Your task to perform on an android device: turn notification dots on Image 0: 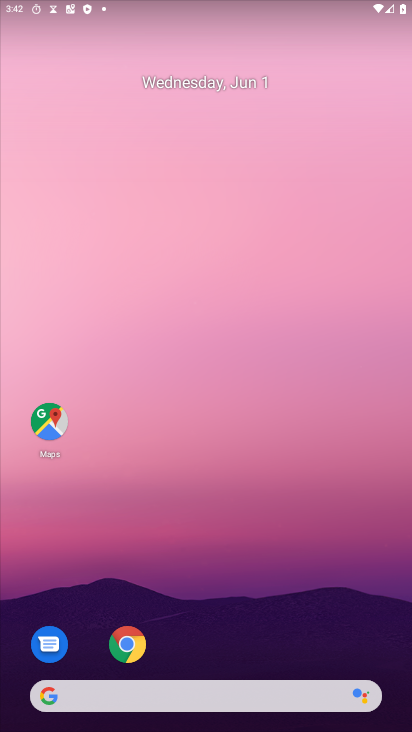
Step 0: drag from (250, 636) to (306, 241)
Your task to perform on an android device: turn notification dots on Image 1: 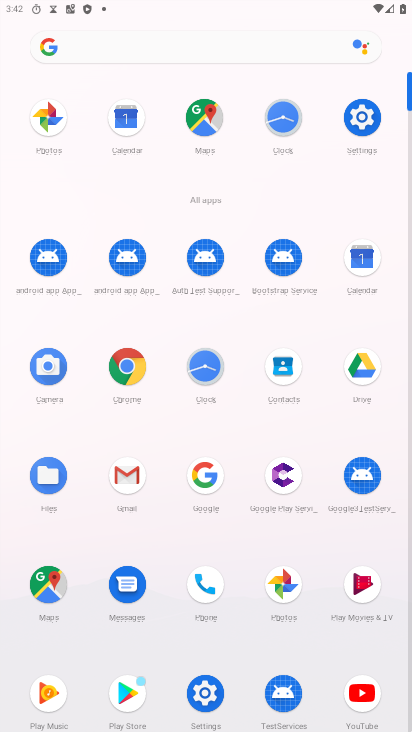
Step 1: click (361, 114)
Your task to perform on an android device: turn notification dots on Image 2: 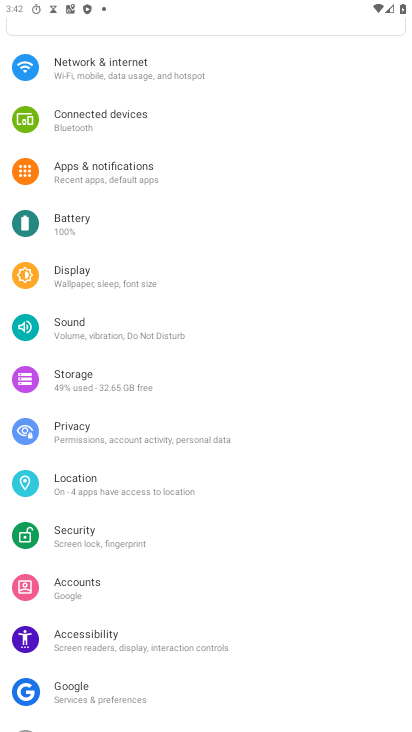
Step 2: click (146, 167)
Your task to perform on an android device: turn notification dots on Image 3: 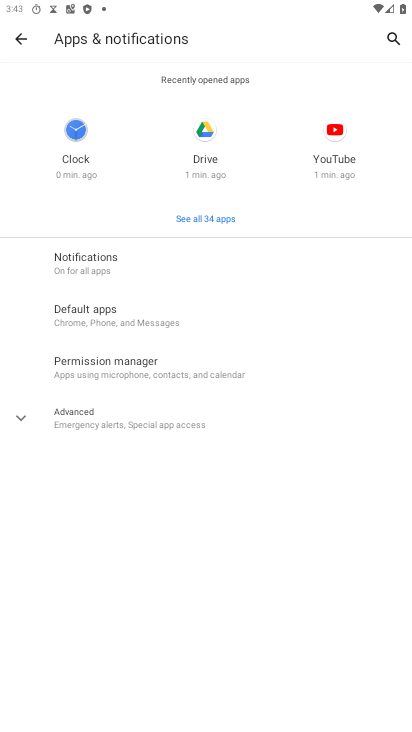
Step 3: click (75, 253)
Your task to perform on an android device: turn notification dots on Image 4: 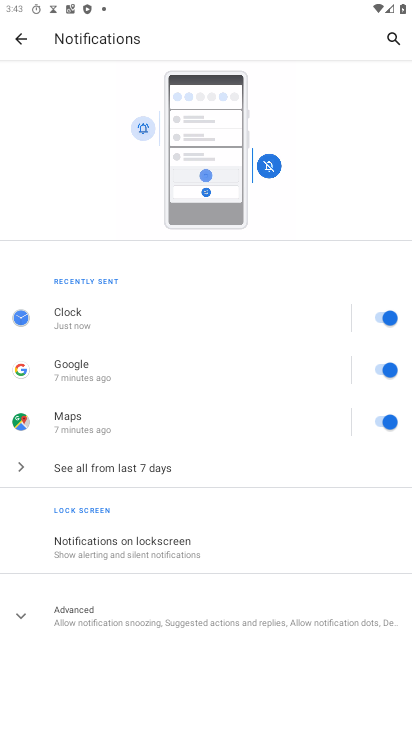
Step 4: click (16, 615)
Your task to perform on an android device: turn notification dots on Image 5: 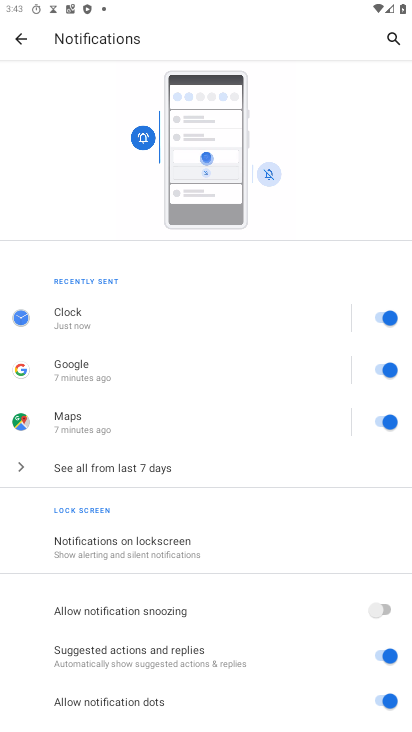
Step 5: task complete